Your task to perform on an android device: Turn off the flashlight Image 0: 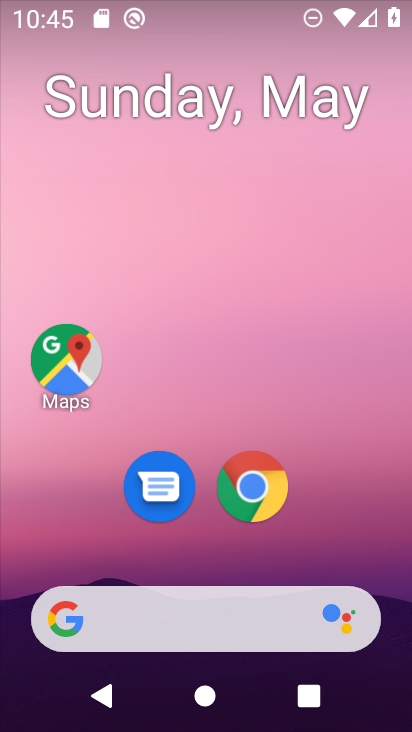
Step 0: drag from (231, 11) to (197, 491)
Your task to perform on an android device: Turn off the flashlight Image 1: 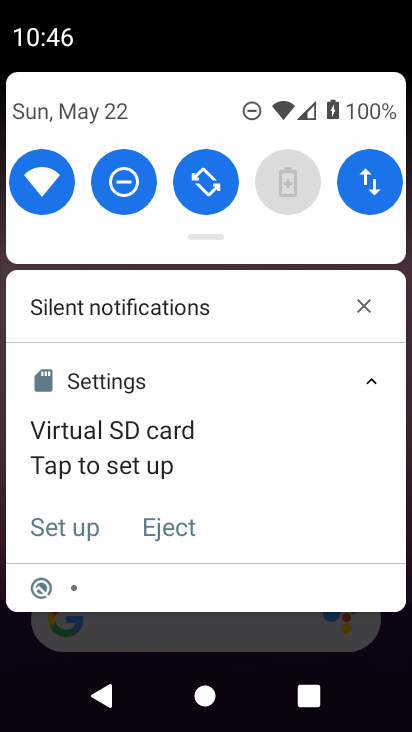
Step 1: drag from (246, 224) to (266, 645)
Your task to perform on an android device: Turn off the flashlight Image 2: 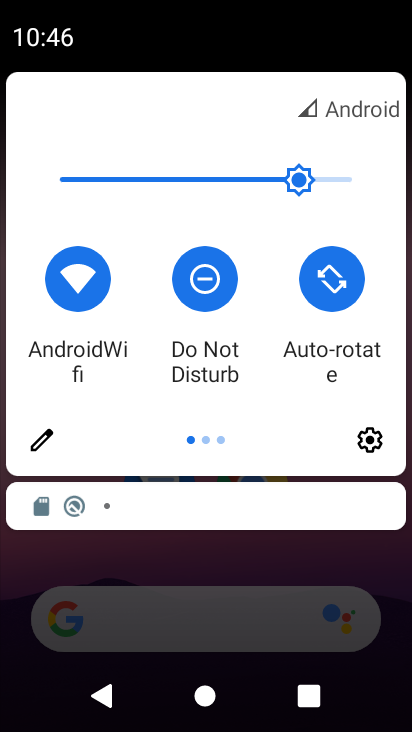
Step 2: click (47, 442)
Your task to perform on an android device: Turn off the flashlight Image 3: 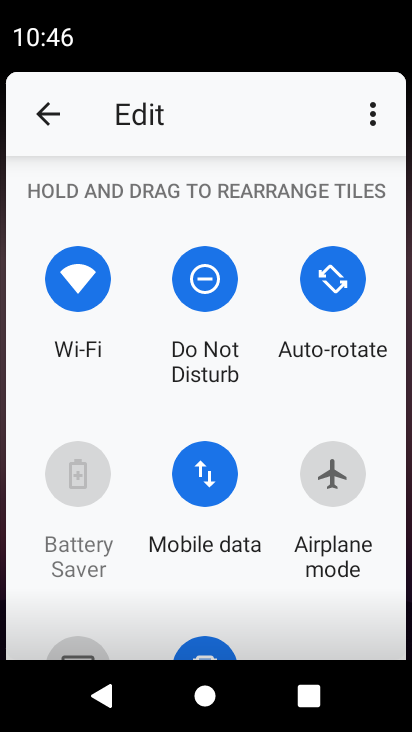
Step 3: task complete